Your task to perform on an android device: turn notification dots off Image 0: 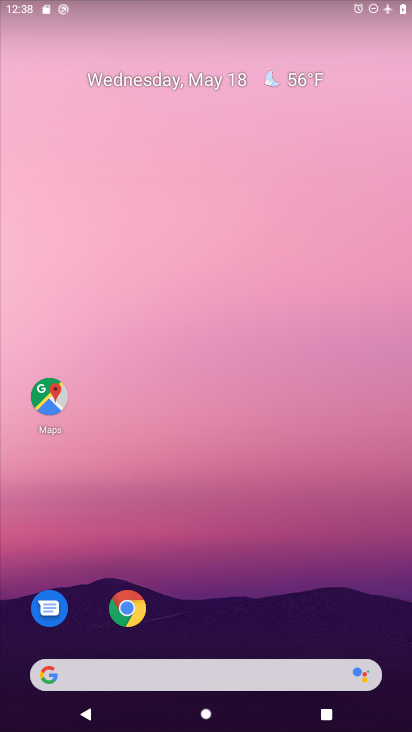
Step 0: drag from (283, 693) to (344, 250)
Your task to perform on an android device: turn notification dots off Image 1: 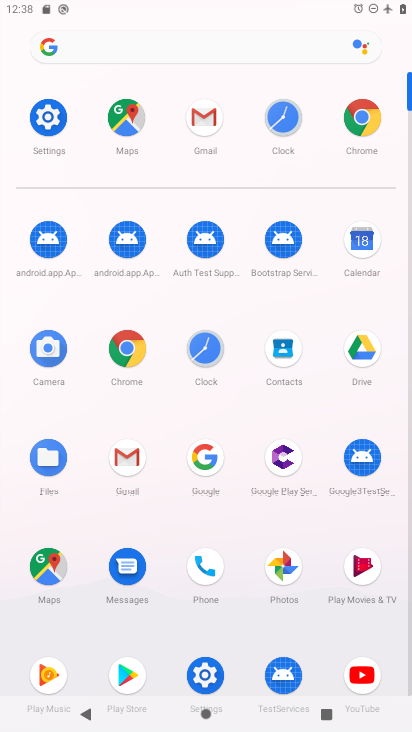
Step 1: click (33, 135)
Your task to perform on an android device: turn notification dots off Image 2: 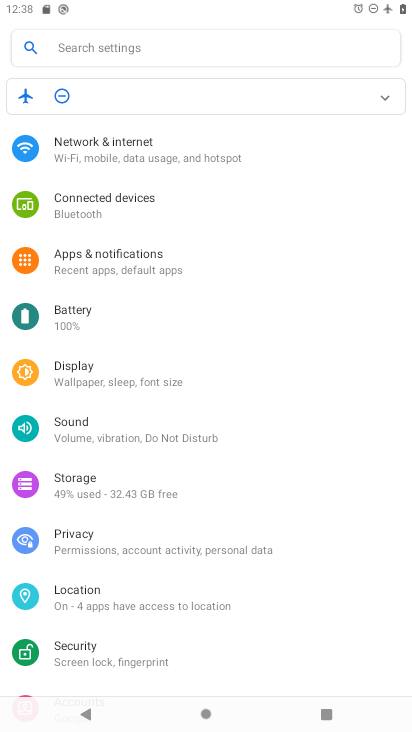
Step 2: click (112, 47)
Your task to perform on an android device: turn notification dots off Image 3: 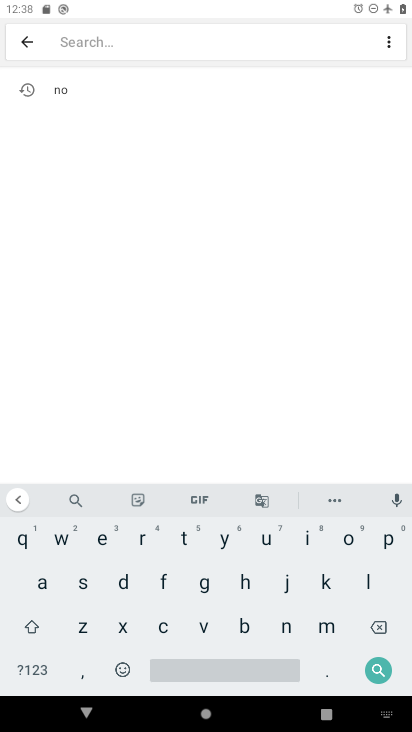
Step 3: click (123, 579)
Your task to perform on an android device: turn notification dots off Image 4: 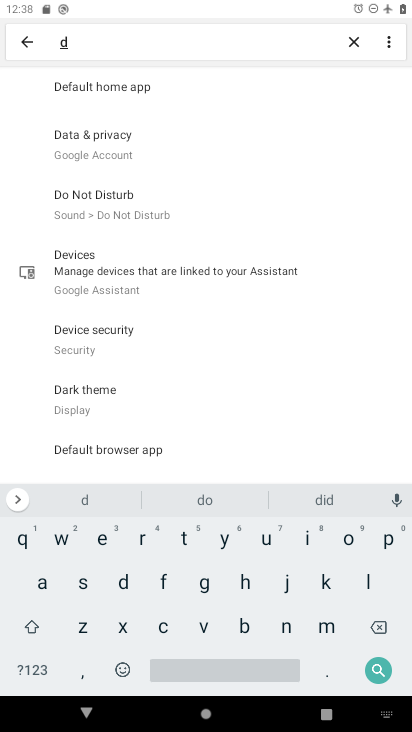
Step 4: click (347, 544)
Your task to perform on an android device: turn notification dots off Image 5: 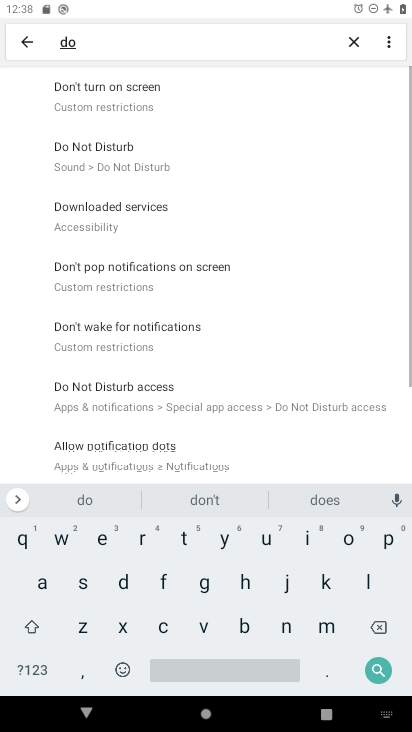
Step 5: click (182, 539)
Your task to perform on an android device: turn notification dots off Image 6: 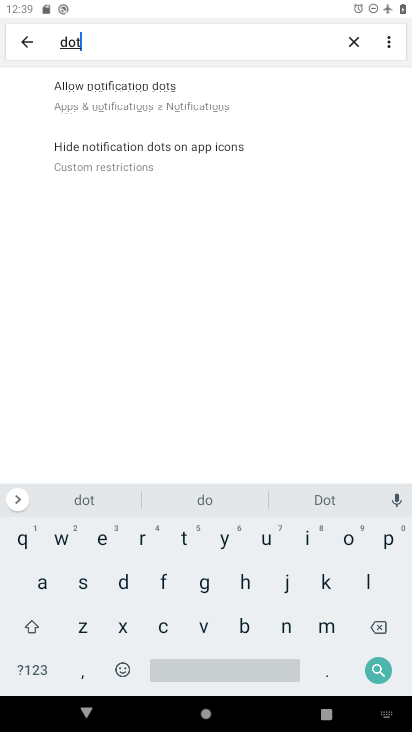
Step 6: click (154, 109)
Your task to perform on an android device: turn notification dots off Image 7: 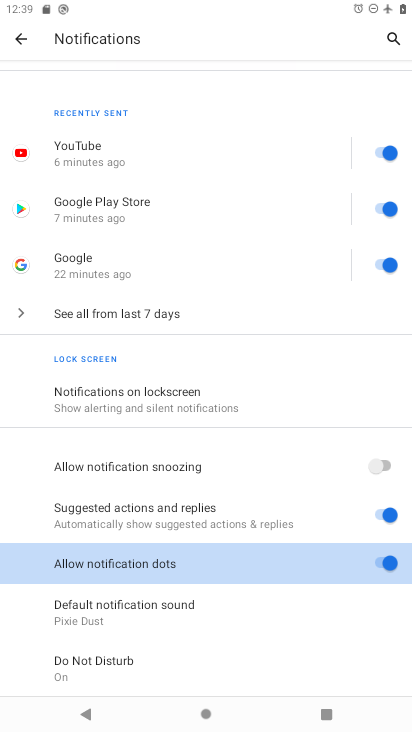
Step 7: click (198, 563)
Your task to perform on an android device: turn notification dots off Image 8: 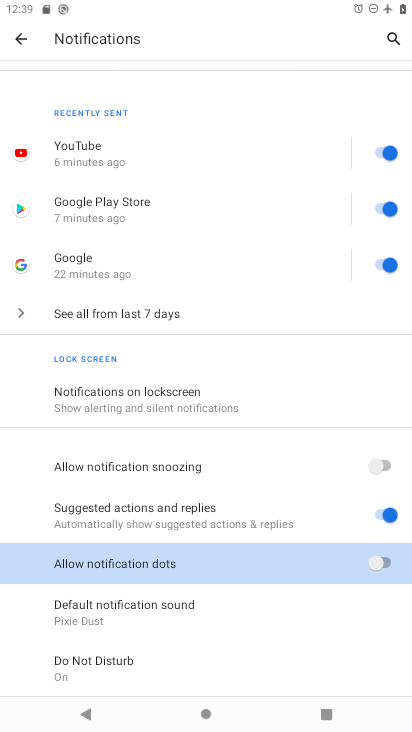
Step 8: task complete